Your task to perform on an android device: Search for pizza restaurants on Maps Image 0: 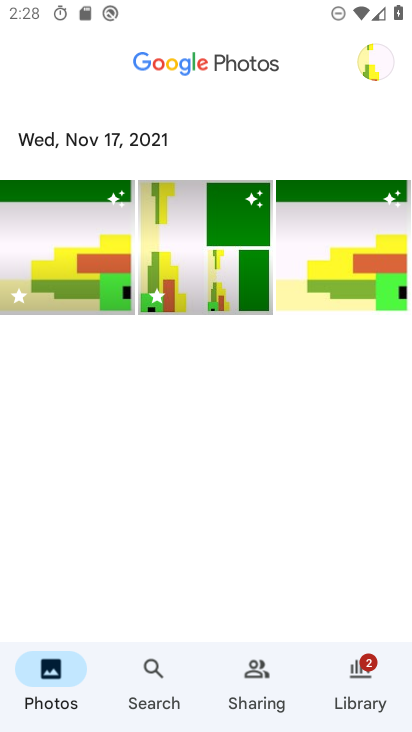
Step 0: press home button
Your task to perform on an android device: Search for pizza restaurants on Maps Image 1: 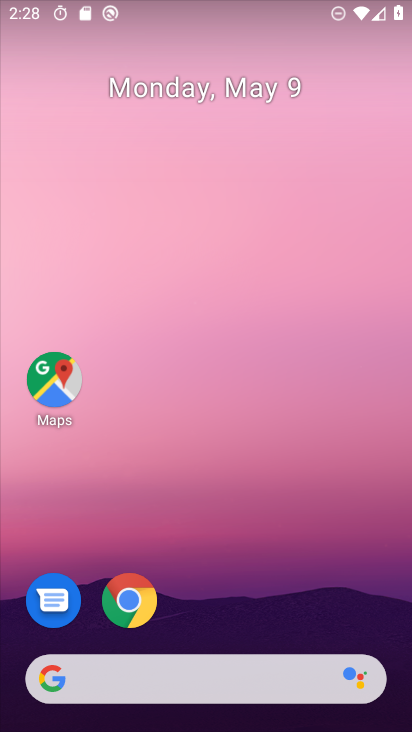
Step 1: click (75, 373)
Your task to perform on an android device: Search for pizza restaurants on Maps Image 2: 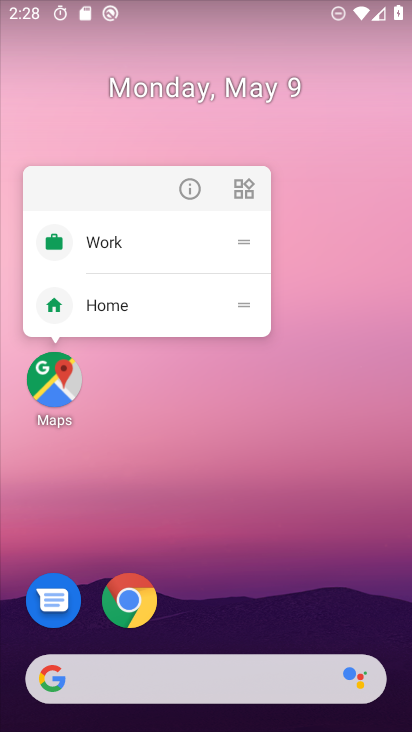
Step 2: click (44, 376)
Your task to perform on an android device: Search for pizza restaurants on Maps Image 3: 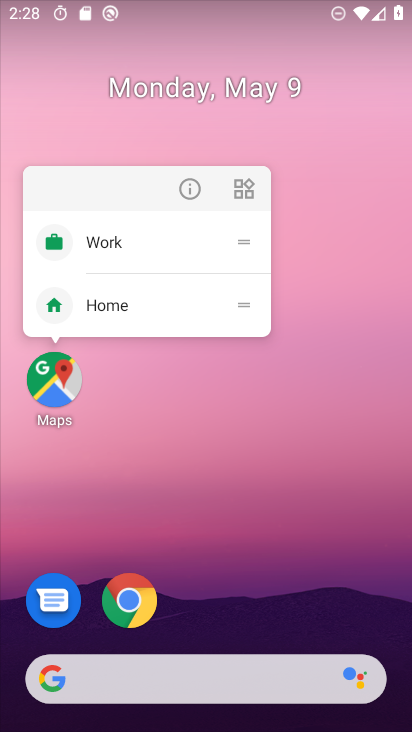
Step 3: click (44, 376)
Your task to perform on an android device: Search for pizza restaurants on Maps Image 4: 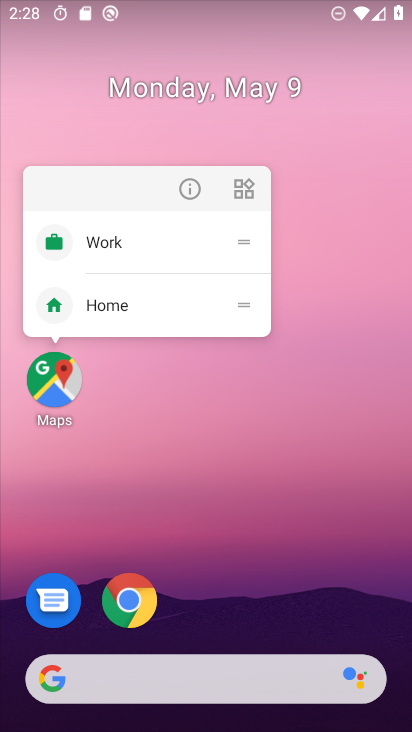
Step 4: click (194, 191)
Your task to perform on an android device: Search for pizza restaurants on Maps Image 5: 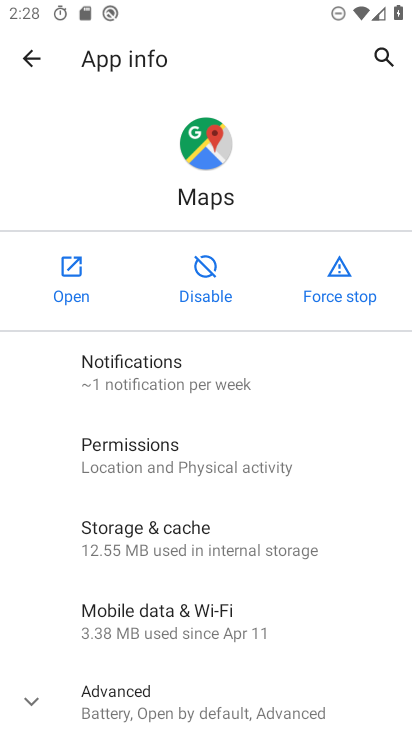
Step 5: click (58, 284)
Your task to perform on an android device: Search for pizza restaurants on Maps Image 6: 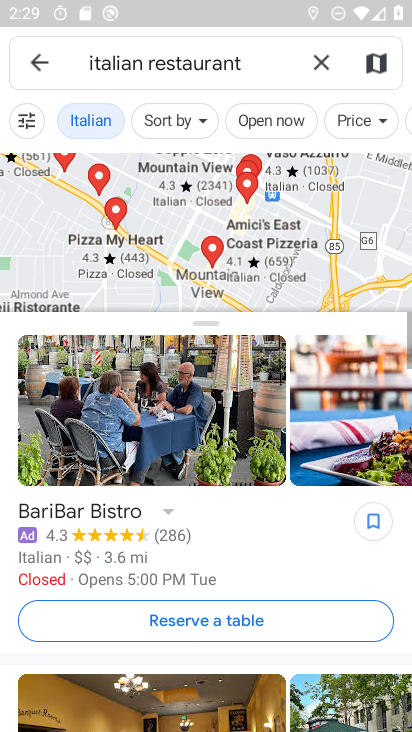
Step 6: click (309, 65)
Your task to perform on an android device: Search for pizza restaurants on Maps Image 7: 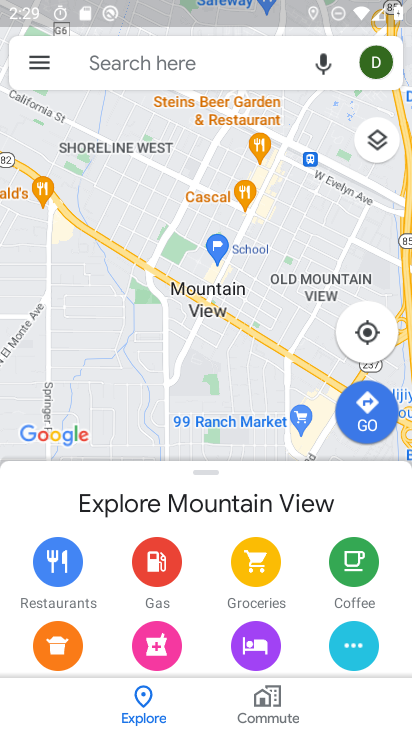
Step 7: click (130, 60)
Your task to perform on an android device: Search for pizza restaurants on Maps Image 8: 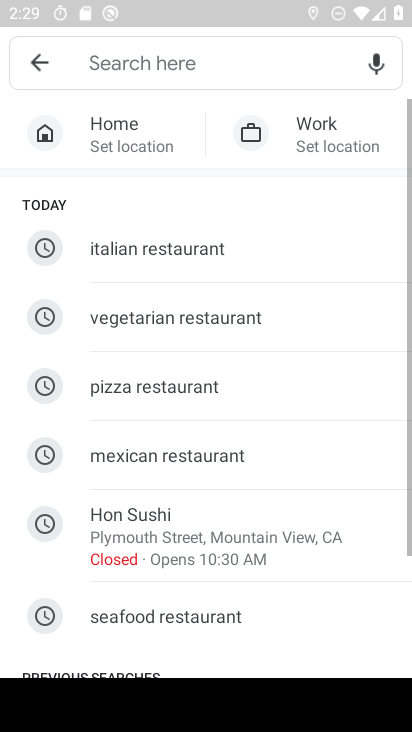
Step 8: click (181, 390)
Your task to perform on an android device: Search for pizza restaurants on Maps Image 9: 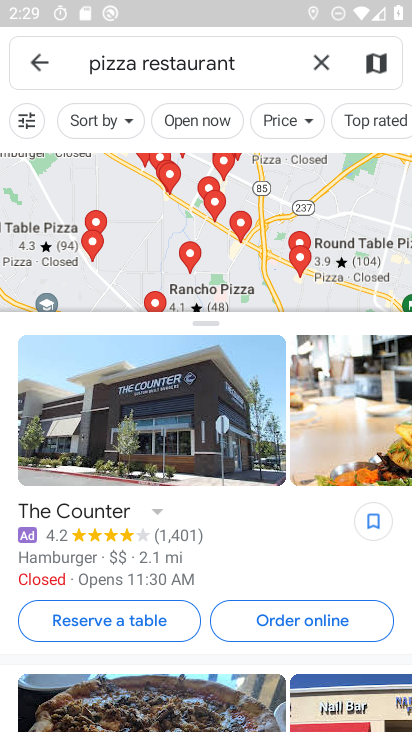
Step 9: task complete